Your task to perform on an android device: Open my contact list Image 0: 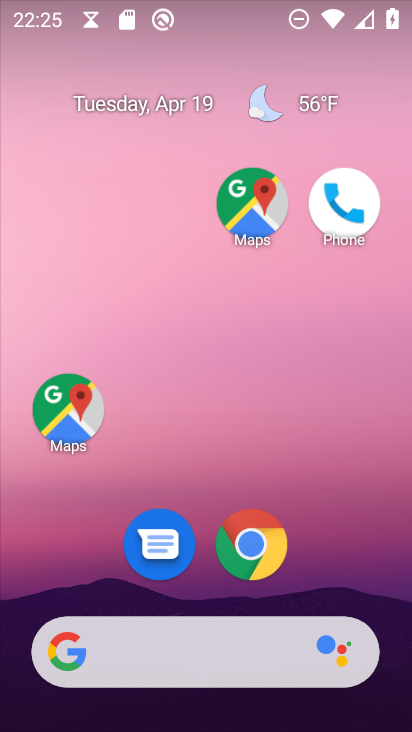
Step 0: drag from (215, 646) to (353, 124)
Your task to perform on an android device: Open my contact list Image 1: 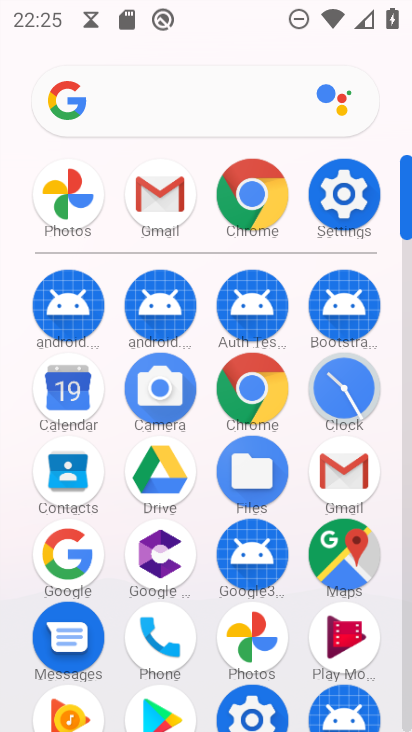
Step 1: click (75, 477)
Your task to perform on an android device: Open my contact list Image 2: 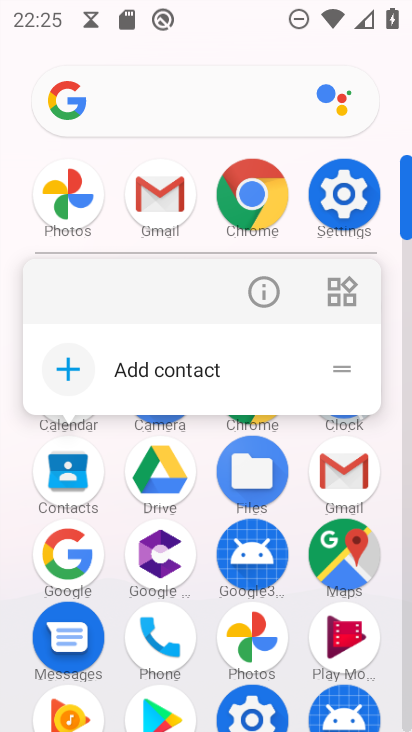
Step 2: click (80, 488)
Your task to perform on an android device: Open my contact list Image 3: 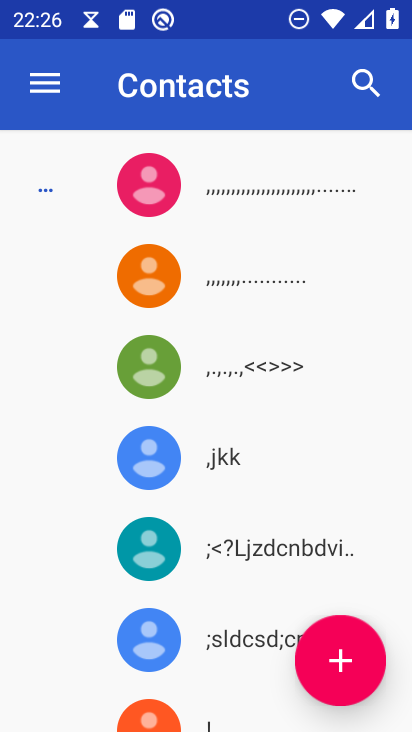
Step 3: task complete